Your task to perform on an android device: Open Google Chrome and click the shortcut for Amazon.com Image 0: 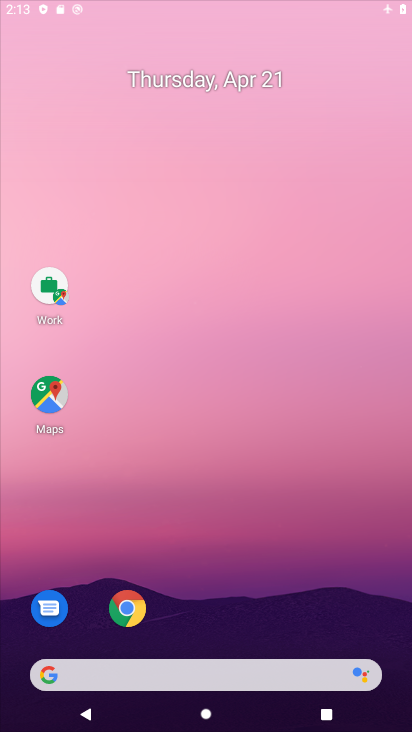
Step 0: drag from (317, 610) to (342, 251)
Your task to perform on an android device: Open Google Chrome and click the shortcut for Amazon.com Image 1: 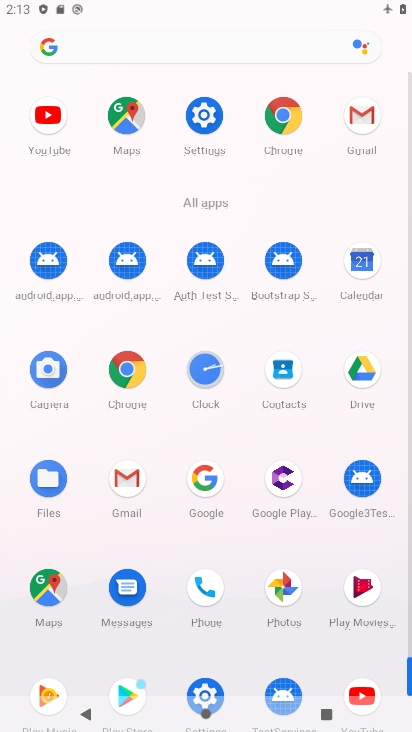
Step 1: click (288, 143)
Your task to perform on an android device: Open Google Chrome and click the shortcut for Amazon.com Image 2: 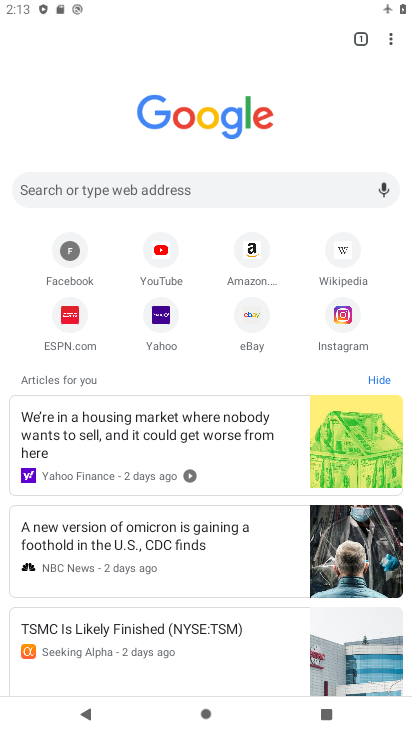
Step 2: click (243, 263)
Your task to perform on an android device: Open Google Chrome and click the shortcut for Amazon.com Image 3: 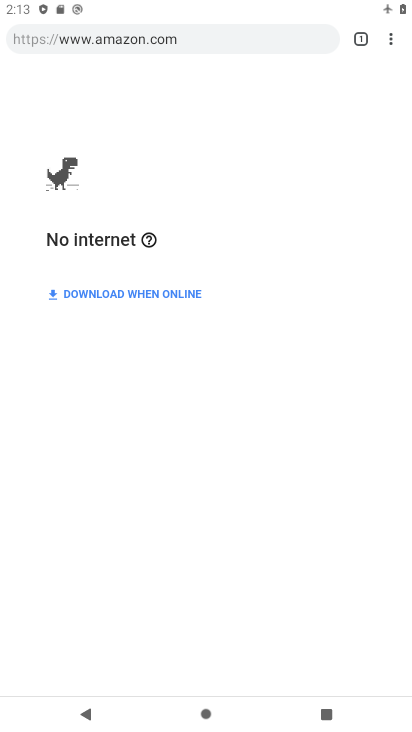
Step 3: task complete